Your task to perform on an android device: Clear all items from cart on costco. Add alienware aurora to the cart on costco, then select checkout. Image 0: 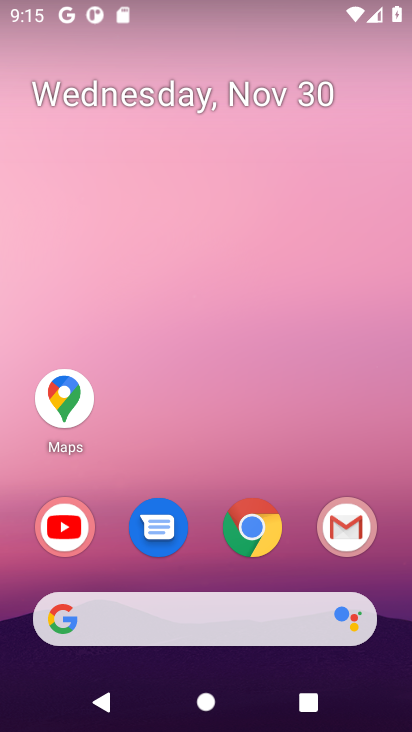
Step 0: click (252, 530)
Your task to perform on an android device: Clear all items from cart on costco. Add alienware aurora to the cart on costco, then select checkout. Image 1: 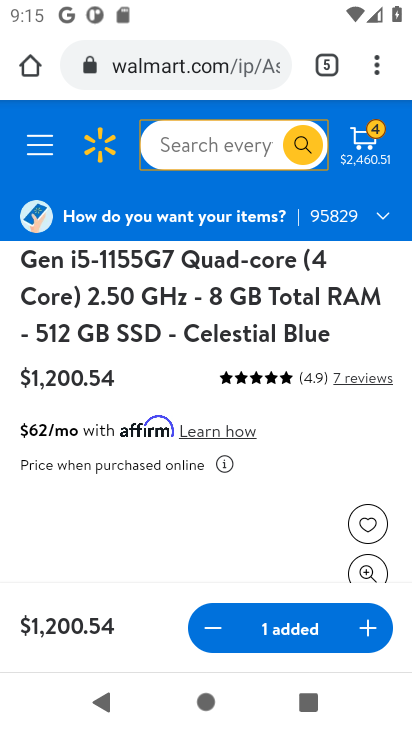
Step 1: click (232, 59)
Your task to perform on an android device: Clear all items from cart on costco. Add alienware aurora to the cart on costco, then select checkout. Image 2: 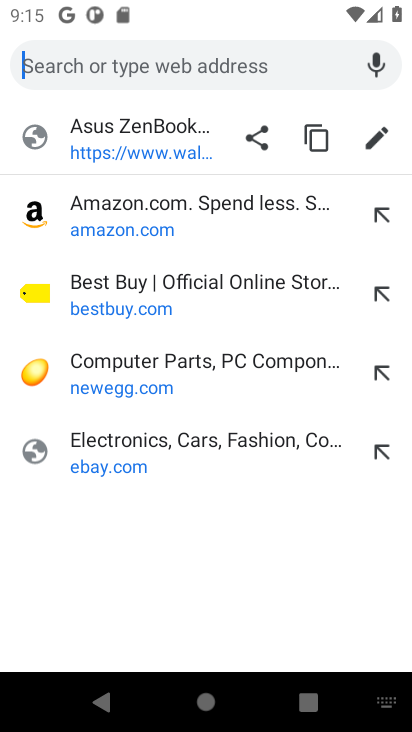
Step 2: type "costco"
Your task to perform on an android device: Clear all items from cart on costco. Add alienware aurora to the cart on costco, then select checkout. Image 3: 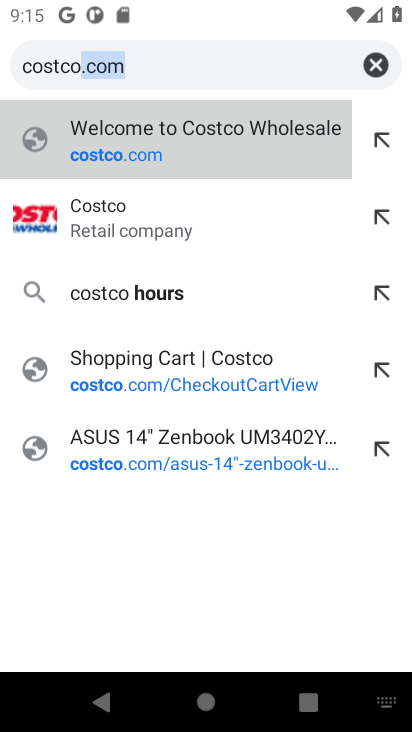
Step 3: press enter
Your task to perform on an android device: Clear all items from cart on costco. Add alienware aurora to the cart on costco, then select checkout. Image 4: 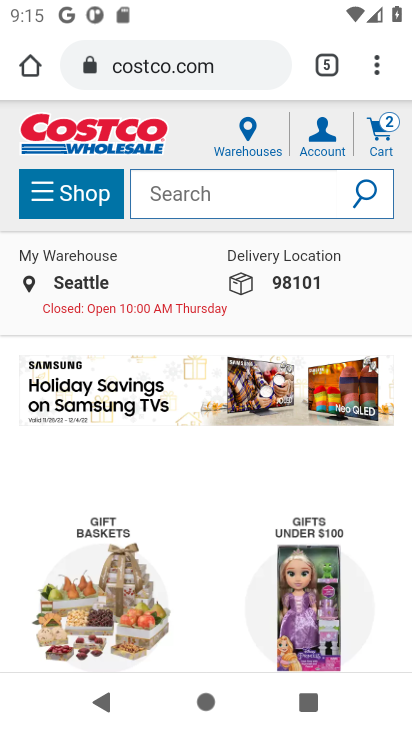
Step 4: click (382, 139)
Your task to perform on an android device: Clear all items from cart on costco. Add alienware aurora to the cart on costco, then select checkout. Image 5: 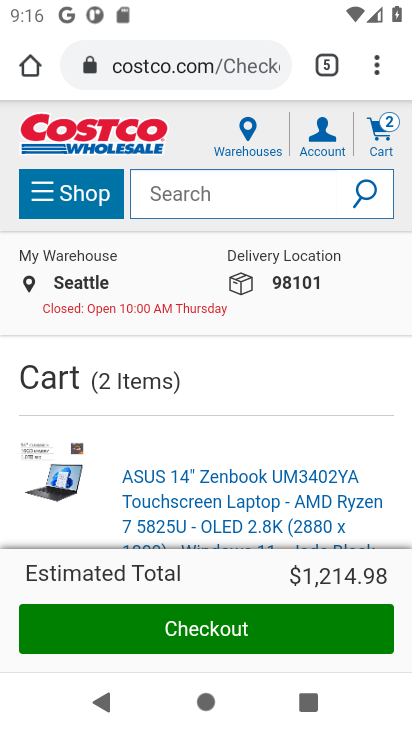
Step 5: drag from (286, 495) to (343, 87)
Your task to perform on an android device: Clear all items from cart on costco. Add alienware aurora to the cart on costco, then select checkout. Image 6: 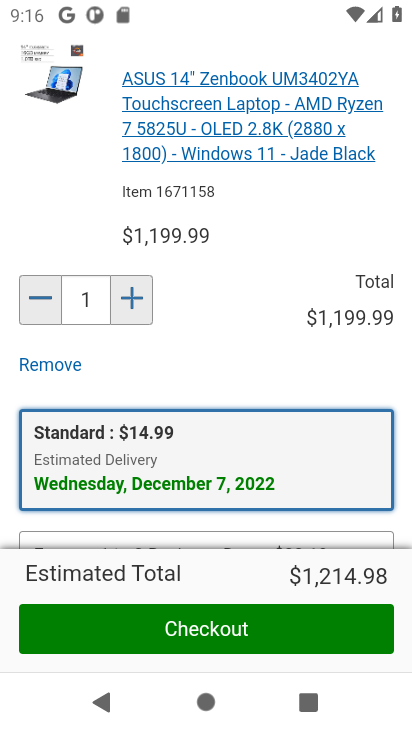
Step 6: click (54, 364)
Your task to perform on an android device: Clear all items from cart on costco. Add alienware aurora to the cart on costco, then select checkout. Image 7: 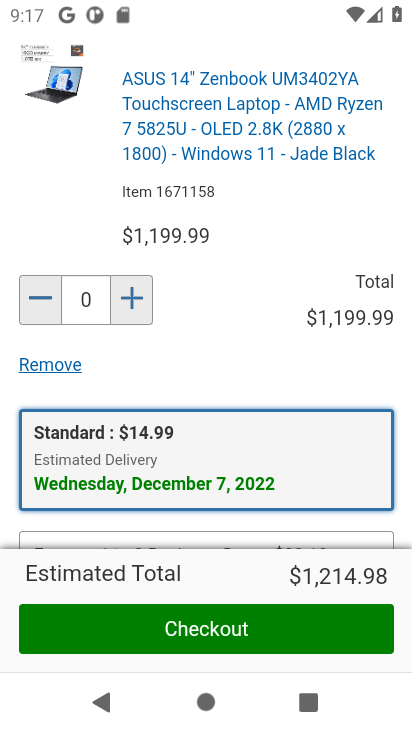
Step 7: click (39, 309)
Your task to perform on an android device: Clear all items from cart on costco. Add alienware aurora to the cart on costco, then select checkout. Image 8: 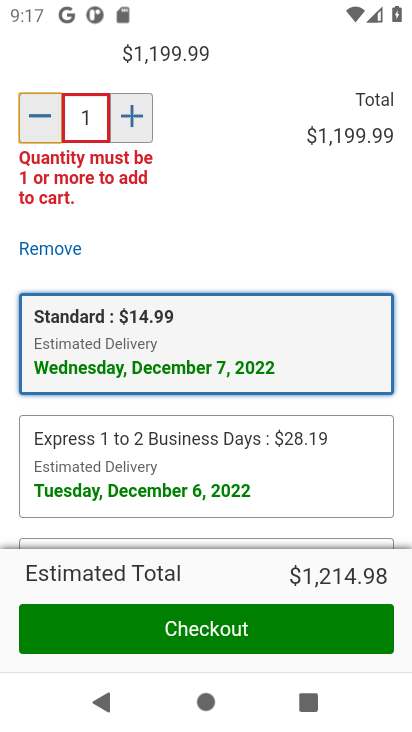
Step 8: click (53, 248)
Your task to perform on an android device: Clear all items from cart on costco. Add alienware aurora to the cart on costco, then select checkout. Image 9: 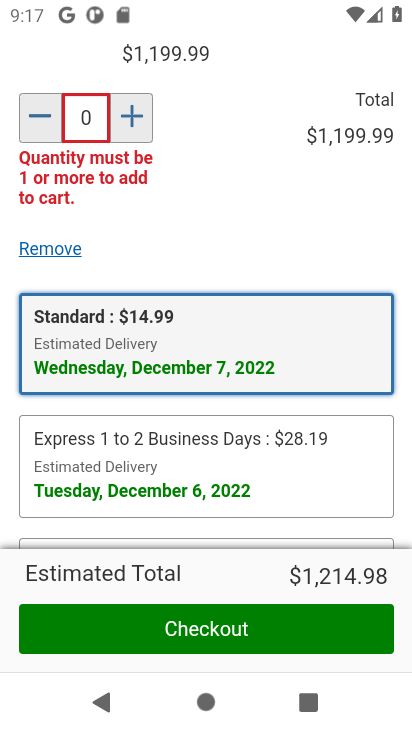
Step 9: click (53, 248)
Your task to perform on an android device: Clear all items from cart on costco. Add alienware aurora to the cart on costco, then select checkout. Image 10: 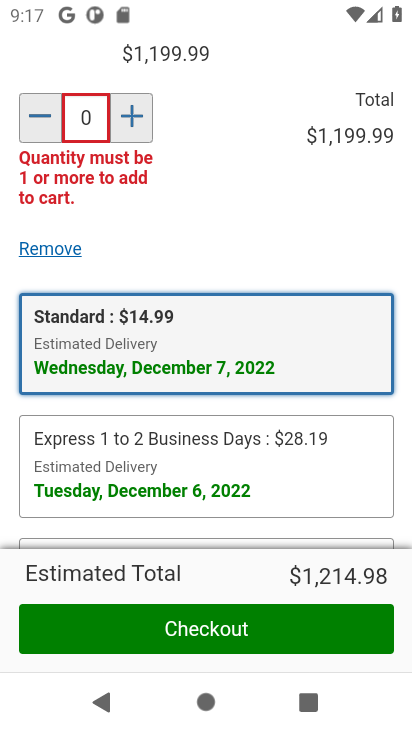
Step 10: drag from (264, 519) to (329, 3)
Your task to perform on an android device: Clear all items from cart on costco. Add alienware aurora to the cart on costco, then select checkout. Image 11: 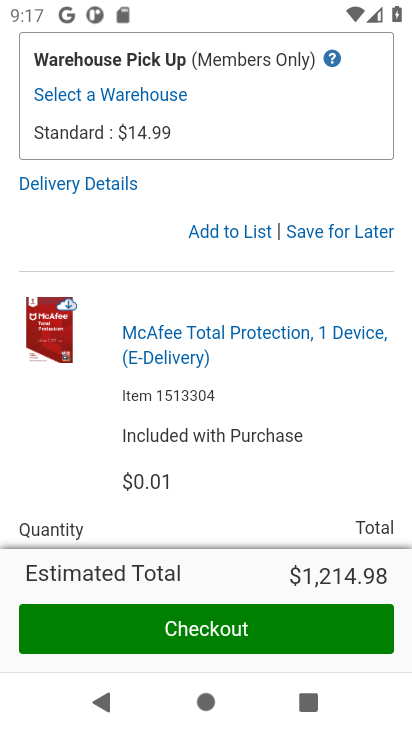
Step 11: drag from (279, 264) to (294, 571)
Your task to perform on an android device: Clear all items from cart on costco. Add alienware aurora to the cart on costco, then select checkout. Image 12: 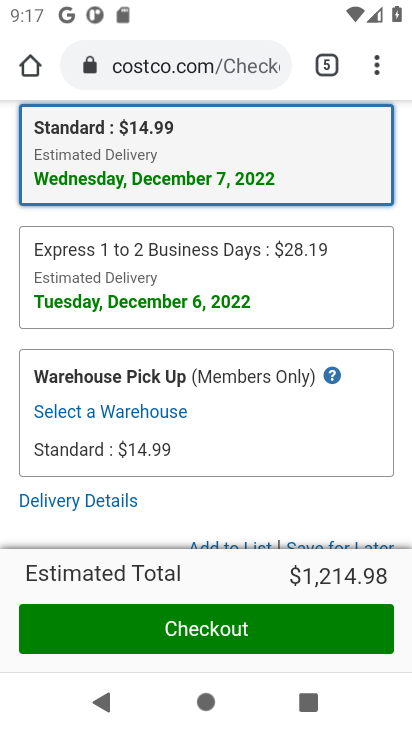
Step 12: drag from (319, 146) to (317, 472)
Your task to perform on an android device: Clear all items from cart on costco. Add alienware aurora to the cart on costco, then select checkout. Image 13: 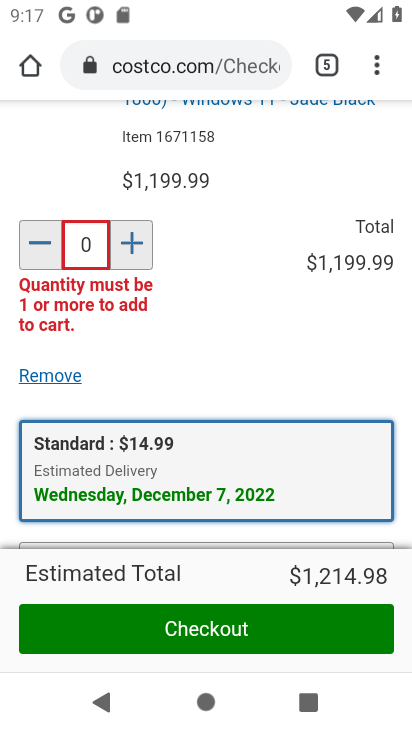
Step 13: drag from (250, 297) to (338, 641)
Your task to perform on an android device: Clear all items from cart on costco. Add alienware aurora to the cart on costco, then select checkout. Image 14: 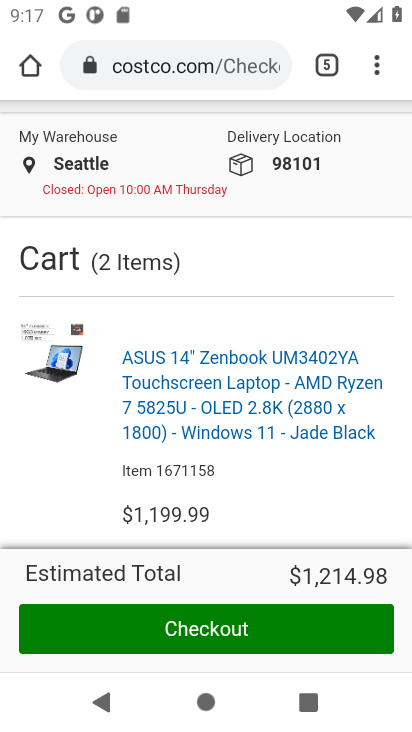
Step 14: drag from (294, 472) to (340, 144)
Your task to perform on an android device: Clear all items from cart on costco. Add alienware aurora to the cart on costco, then select checkout. Image 15: 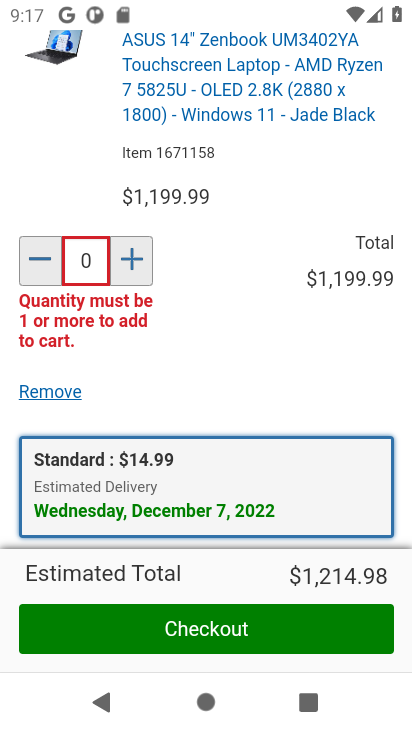
Step 15: drag from (253, 399) to (264, 329)
Your task to perform on an android device: Clear all items from cart on costco. Add alienware aurora to the cart on costco, then select checkout. Image 16: 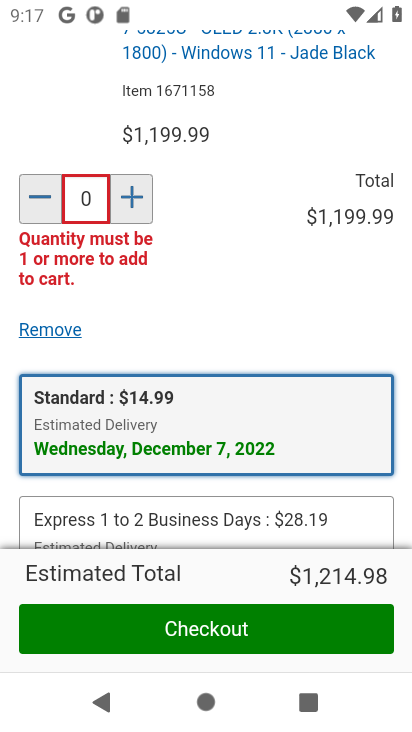
Step 16: click (59, 327)
Your task to perform on an android device: Clear all items from cart on costco. Add alienware aurora to the cart on costco, then select checkout. Image 17: 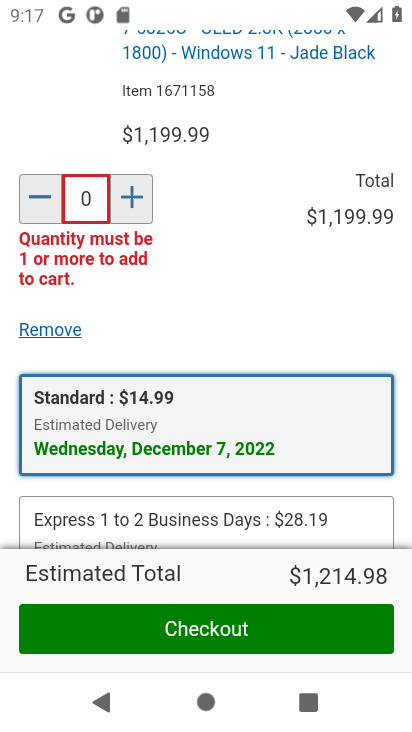
Step 17: task complete